Your task to perform on an android device: turn off improve location accuracy Image 0: 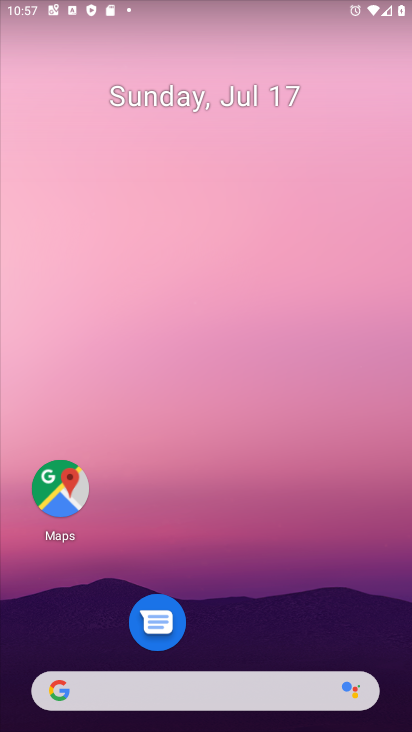
Step 0: drag from (305, 572) to (302, 96)
Your task to perform on an android device: turn off improve location accuracy Image 1: 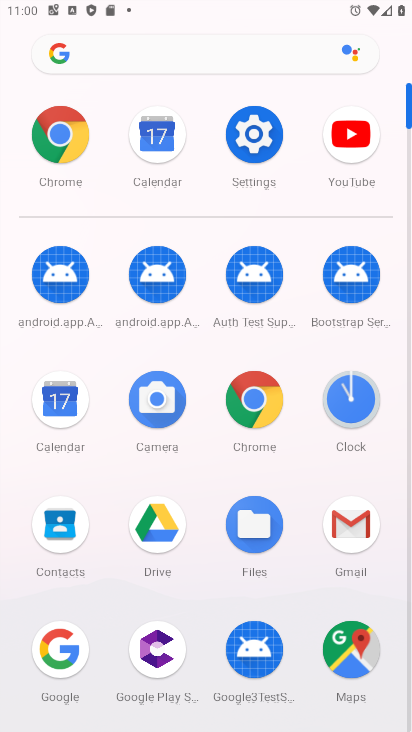
Step 1: click (257, 131)
Your task to perform on an android device: turn off improve location accuracy Image 2: 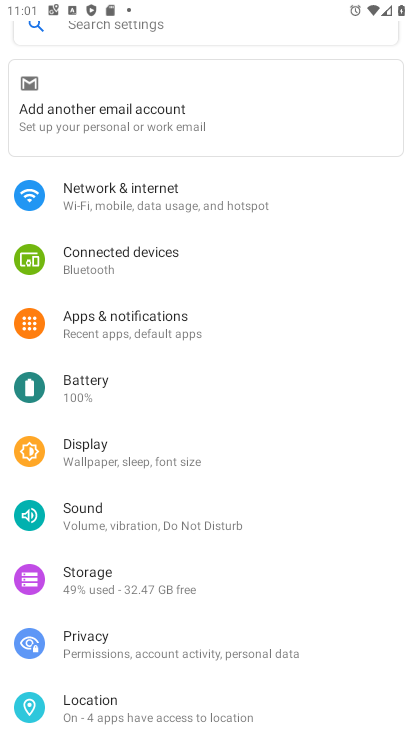
Step 2: click (228, 716)
Your task to perform on an android device: turn off improve location accuracy Image 3: 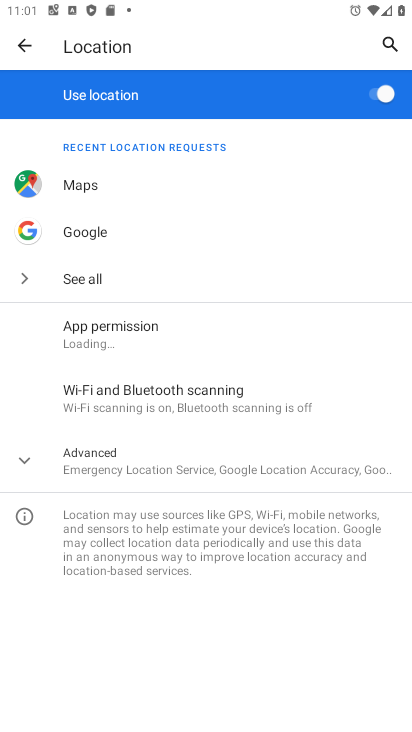
Step 3: click (216, 469)
Your task to perform on an android device: turn off improve location accuracy Image 4: 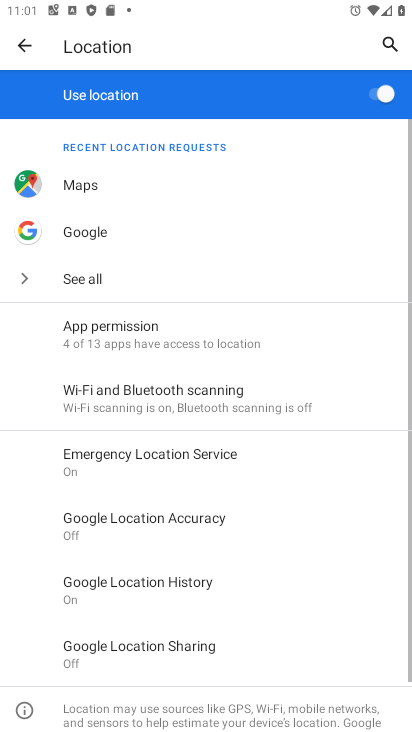
Step 4: click (223, 523)
Your task to perform on an android device: turn off improve location accuracy Image 5: 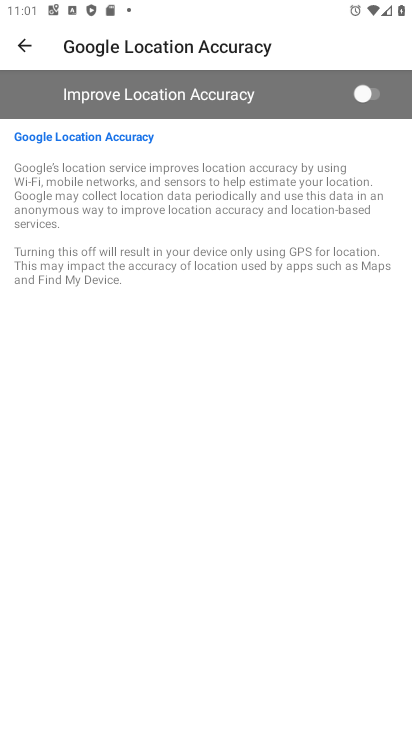
Step 5: task complete